Your task to perform on an android device: Is it going to rain today? Image 0: 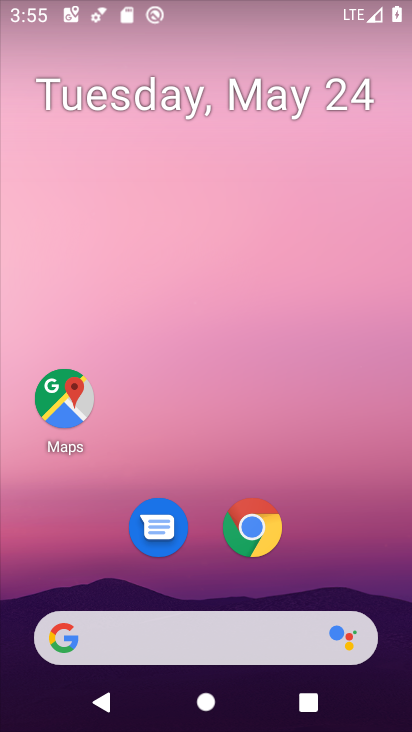
Step 0: click (103, 638)
Your task to perform on an android device: Is it going to rain today? Image 1: 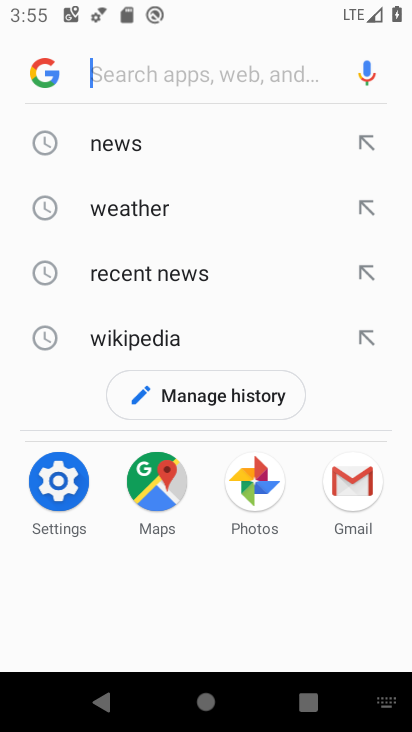
Step 1: click (97, 209)
Your task to perform on an android device: Is it going to rain today? Image 2: 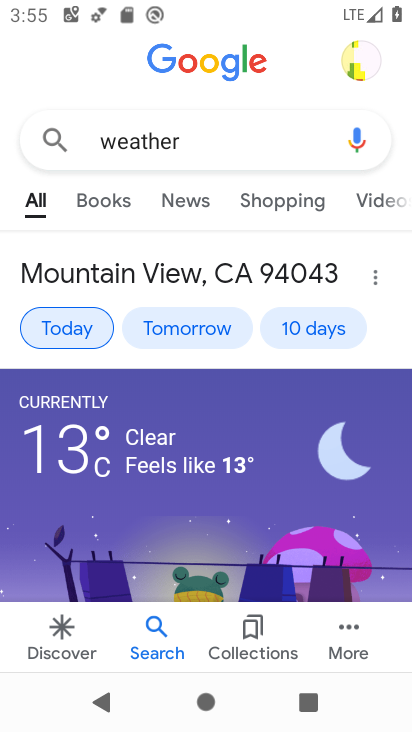
Step 2: task complete